Your task to perform on an android device: find photos in the google photos app Image 0: 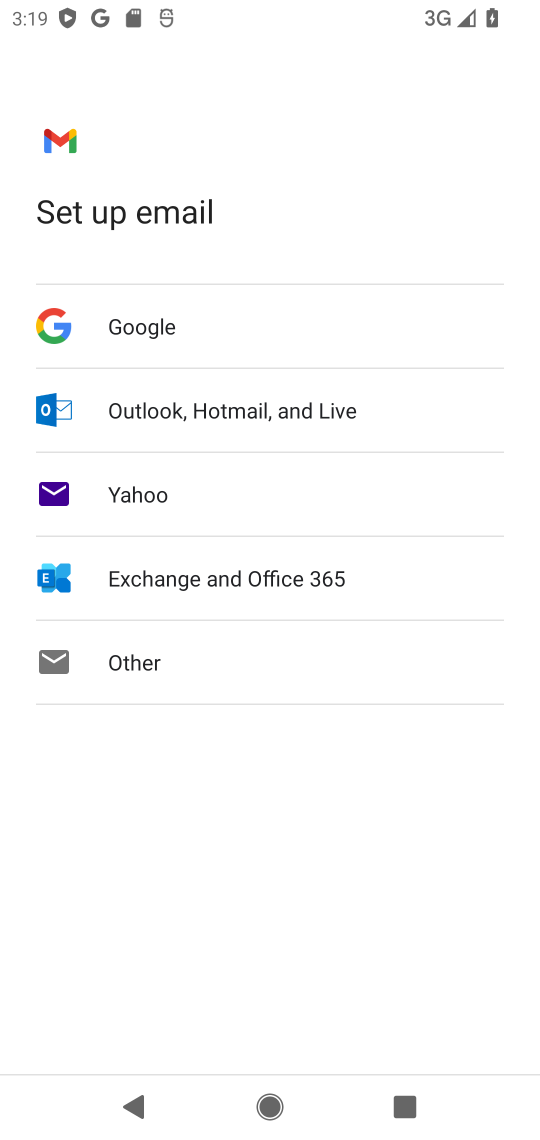
Step 0: press home button
Your task to perform on an android device: find photos in the google photos app Image 1: 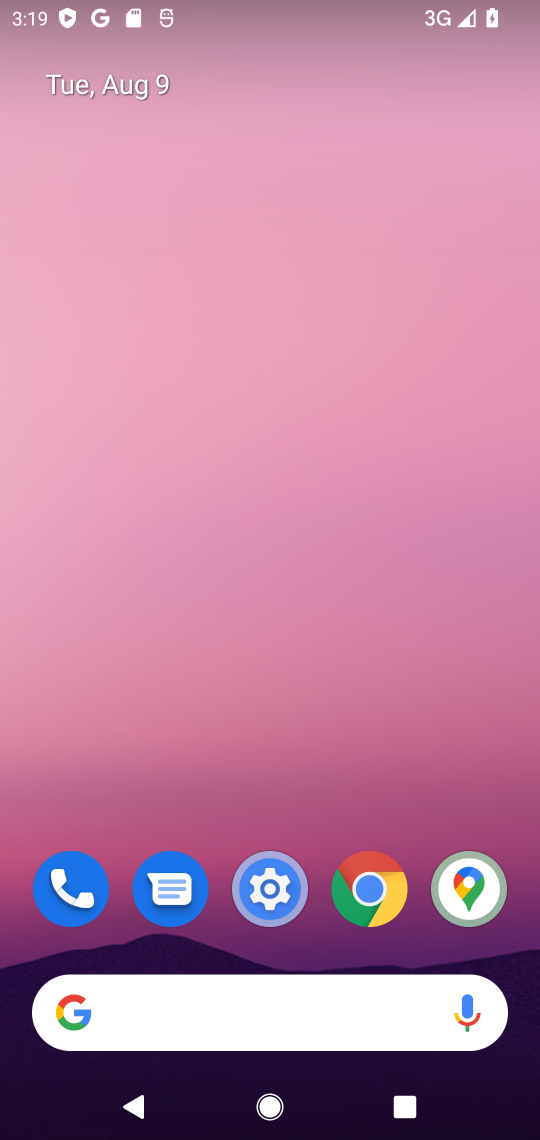
Step 1: drag from (297, 788) to (339, 7)
Your task to perform on an android device: find photos in the google photos app Image 2: 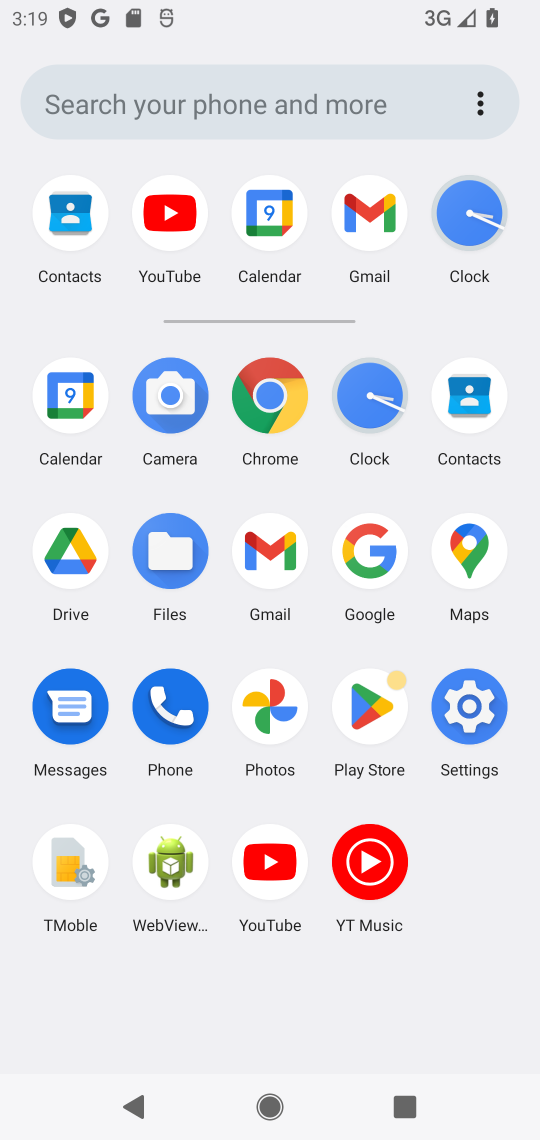
Step 2: click (268, 701)
Your task to perform on an android device: find photos in the google photos app Image 3: 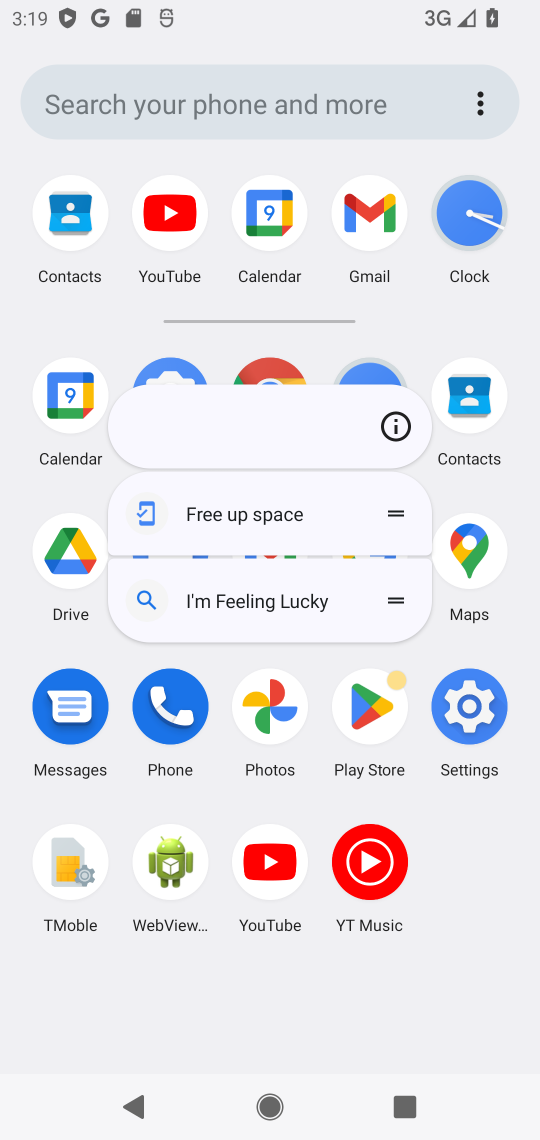
Step 3: click (268, 699)
Your task to perform on an android device: find photos in the google photos app Image 4: 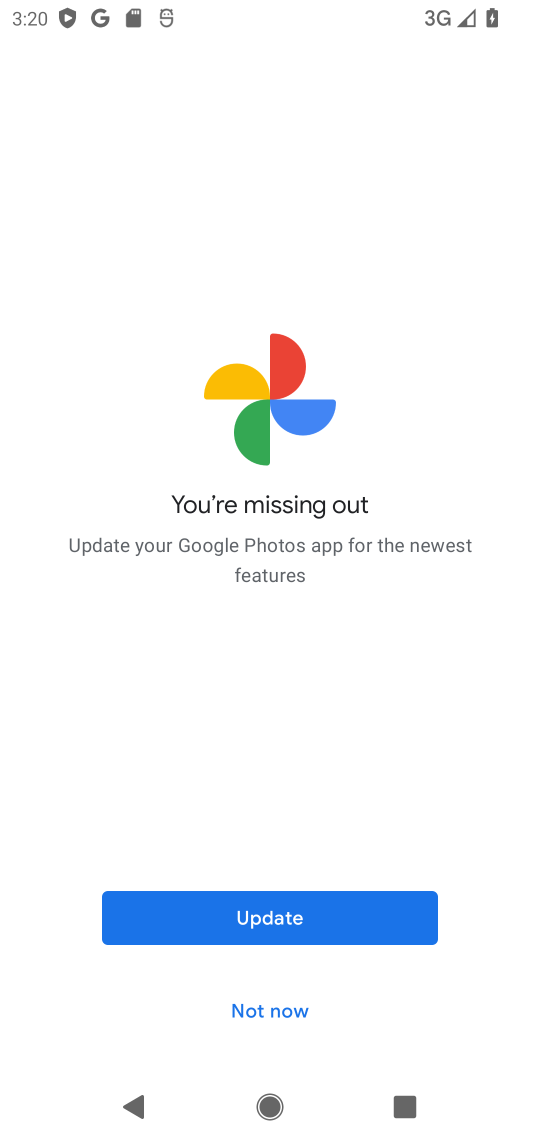
Step 4: click (278, 1011)
Your task to perform on an android device: find photos in the google photos app Image 5: 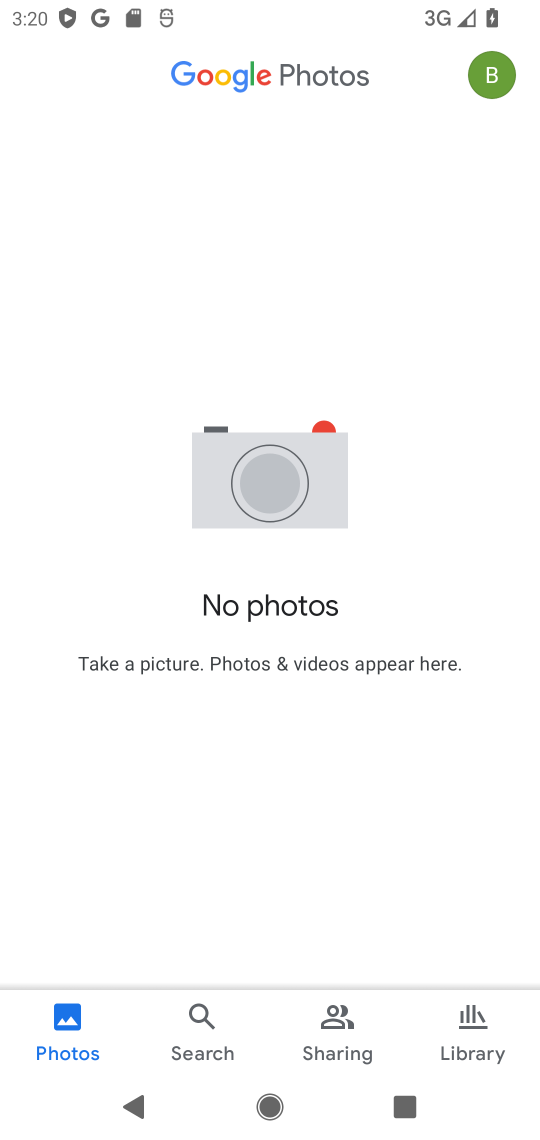
Step 5: task complete